Your task to perform on an android device: Open Youtube and go to "Your channel" Image 0: 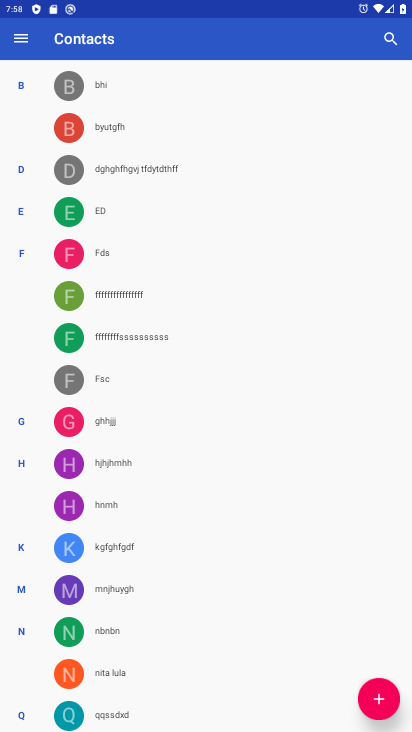
Step 0: press home button
Your task to perform on an android device: Open Youtube and go to "Your channel" Image 1: 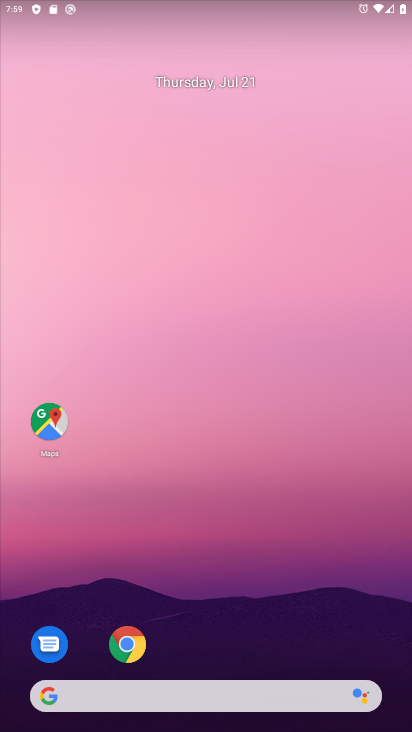
Step 1: drag from (290, 624) to (365, 110)
Your task to perform on an android device: Open Youtube and go to "Your channel" Image 2: 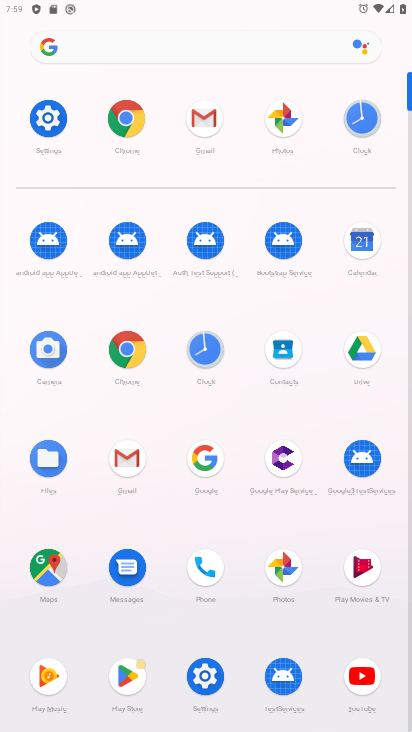
Step 2: click (358, 679)
Your task to perform on an android device: Open Youtube and go to "Your channel" Image 3: 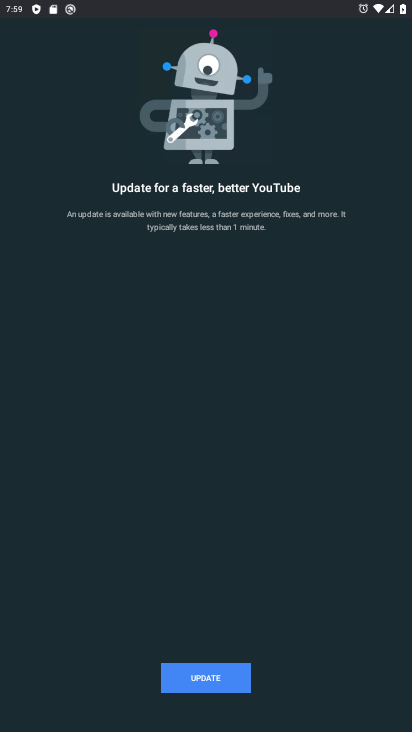
Step 3: click (238, 677)
Your task to perform on an android device: Open Youtube and go to "Your channel" Image 4: 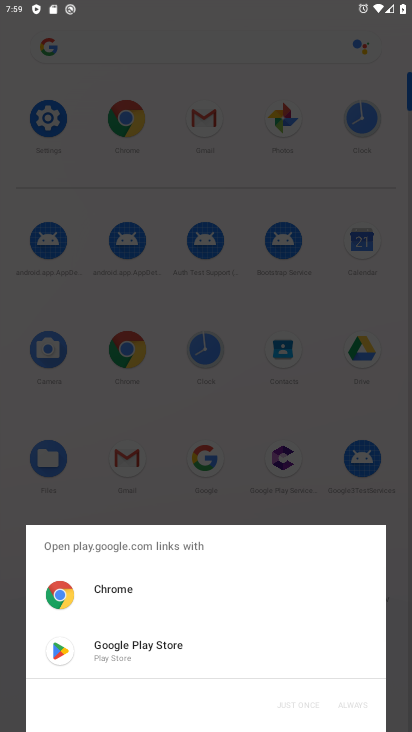
Step 4: click (169, 663)
Your task to perform on an android device: Open Youtube and go to "Your channel" Image 5: 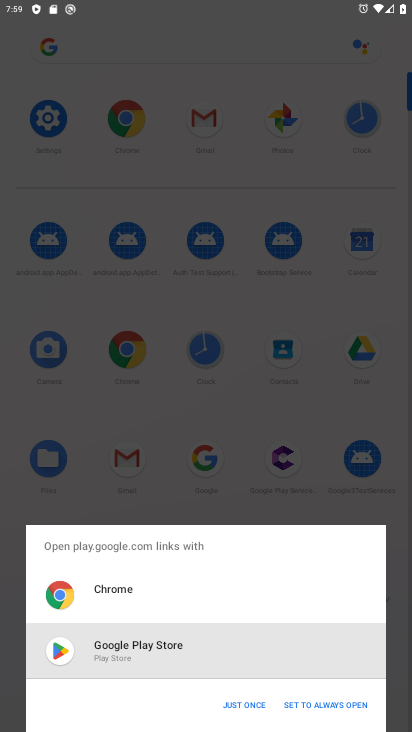
Step 5: click (231, 716)
Your task to perform on an android device: Open Youtube and go to "Your channel" Image 6: 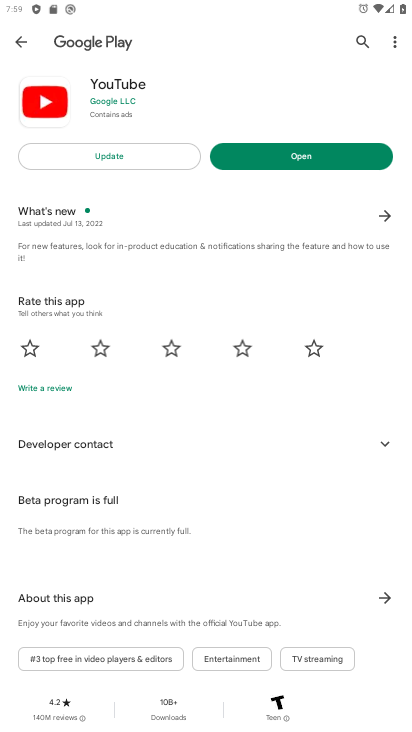
Step 6: click (131, 153)
Your task to perform on an android device: Open Youtube and go to "Your channel" Image 7: 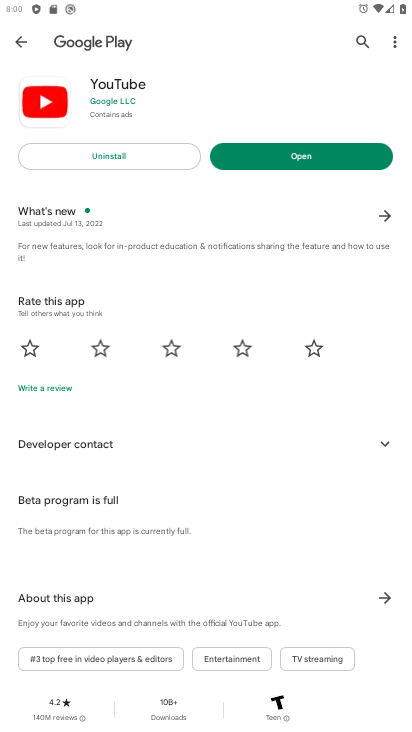
Step 7: click (373, 144)
Your task to perform on an android device: Open Youtube and go to "Your channel" Image 8: 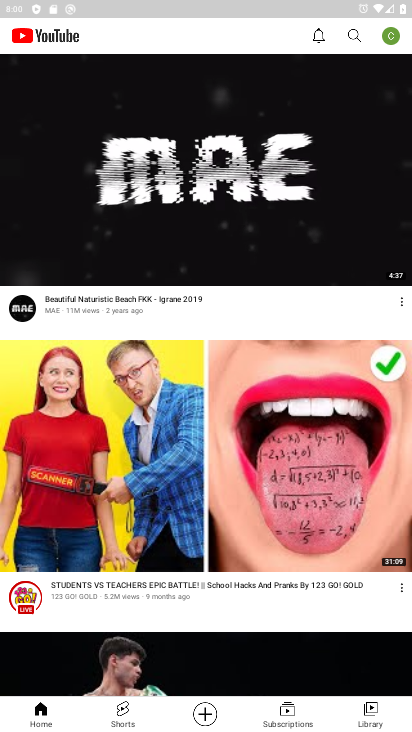
Step 8: click (391, 35)
Your task to perform on an android device: Open Youtube and go to "Your channel" Image 9: 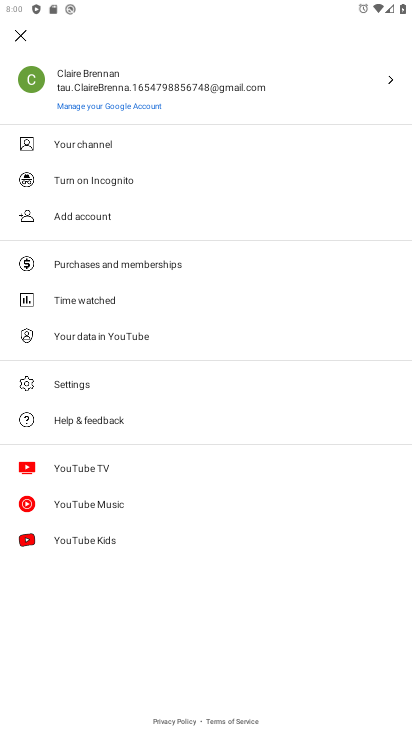
Step 9: click (111, 140)
Your task to perform on an android device: Open Youtube and go to "Your channel" Image 10: 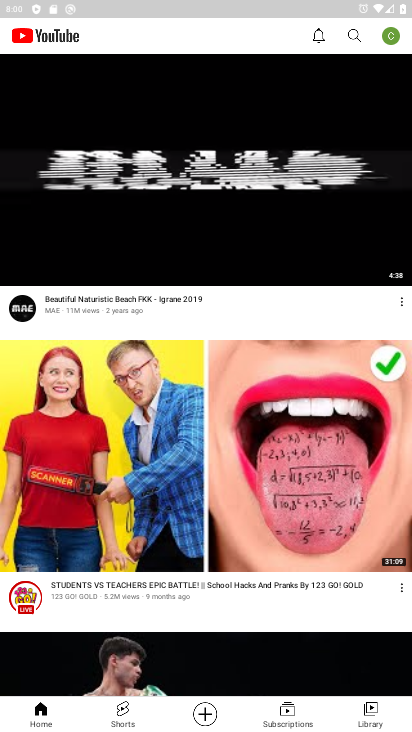
Step 10: task complete